Your task to perform on an android device: Set the phone to "Do not disturb". Image 0: 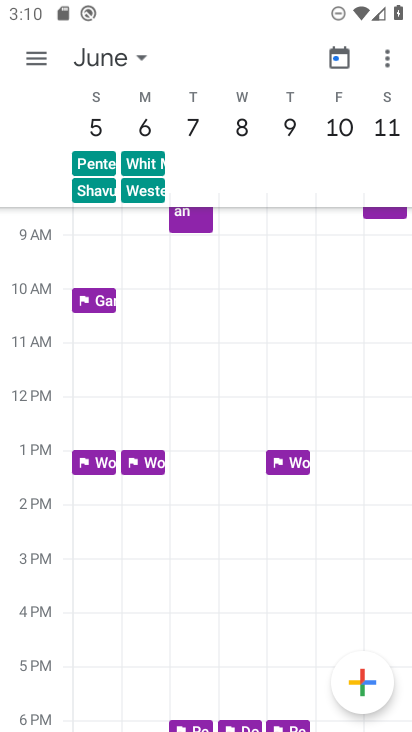
Step 0: press home button
Your task to perform on an android device: Set the phone to "Do not disturb". Image 1: 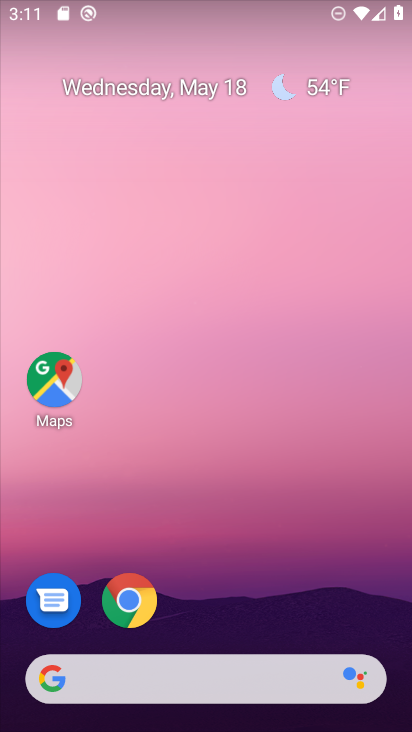
Step 1: drag from (201, 619) to (300, 145)
Your task to perform on an android device: Set the phone to "Do not disturb". Image 2: 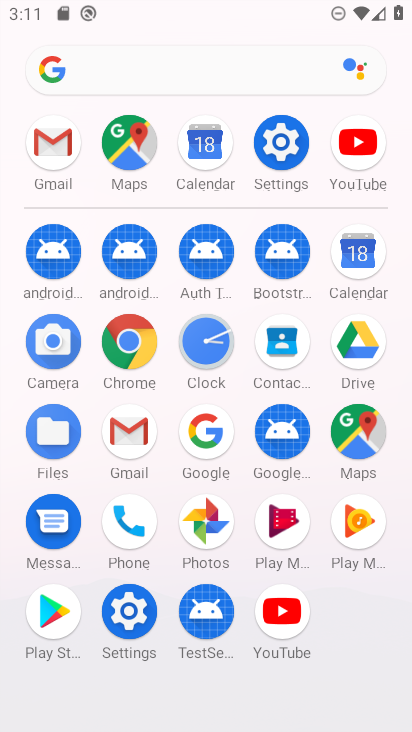
Step 2: click (127, 630)
Your task to perform on an android device: Set the phone to "Do not disturb". Image 3: 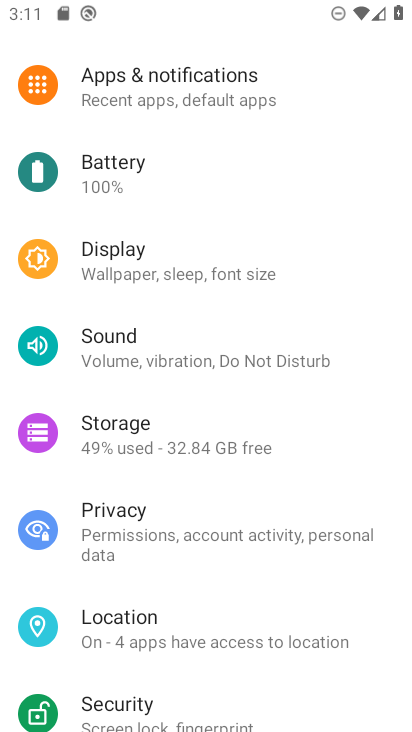
Step 3: click (140, 350)
Your task to perform on an android device: Set the phone to "Do not disturb". Image 4: 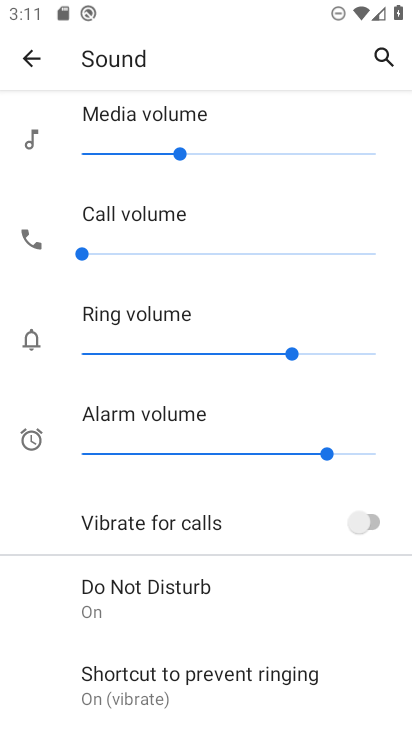
Step 4: task complete